Your task to perform on an android device: Do I have any events today? Image 0: 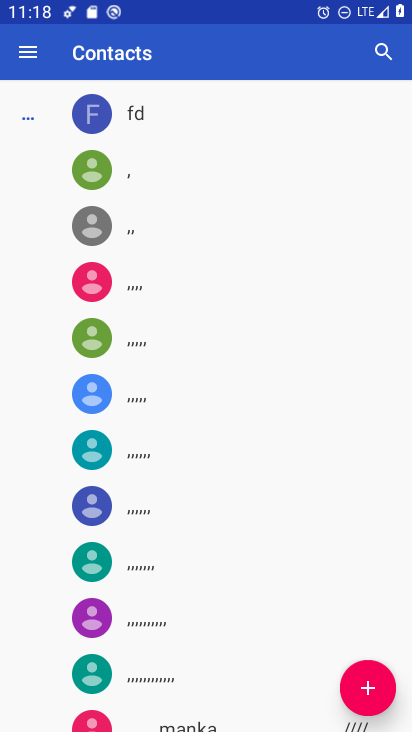
Step 0: press home button
Your task to perform on an android device: Do I have any events today? Image 1: 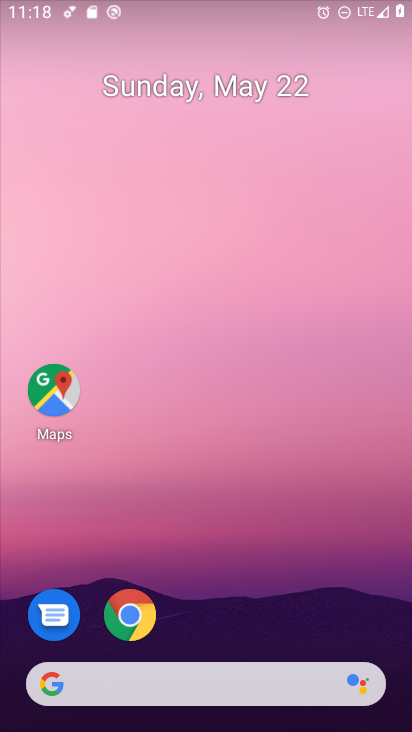
Step 1: drag from (286, 577) to (285, 36)
Your task to perform on an android device: Do I have any events today? Image 2: 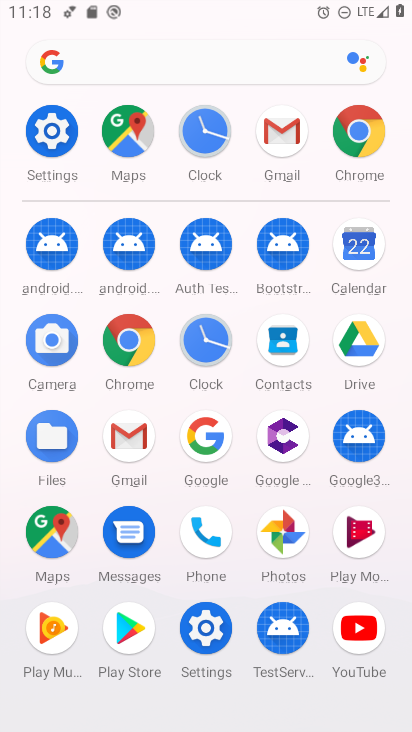
Step 2: click (363, 252)
Your task to perform on an android device: Do I have any events today? Image 3: 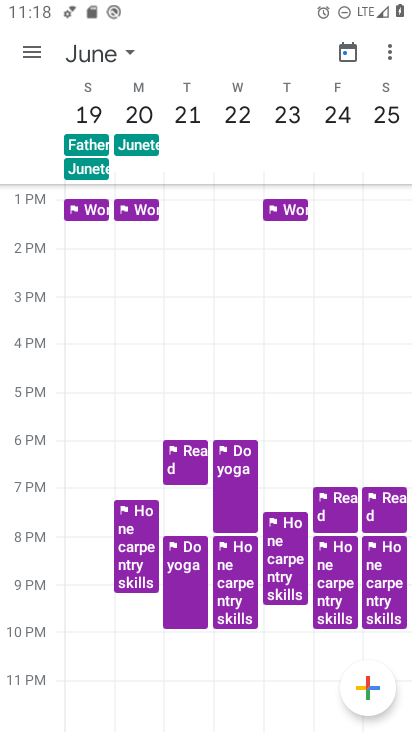
Step 3: click (117, 54)
Your task to perform on an android device: Do I have any events today? Image 4: 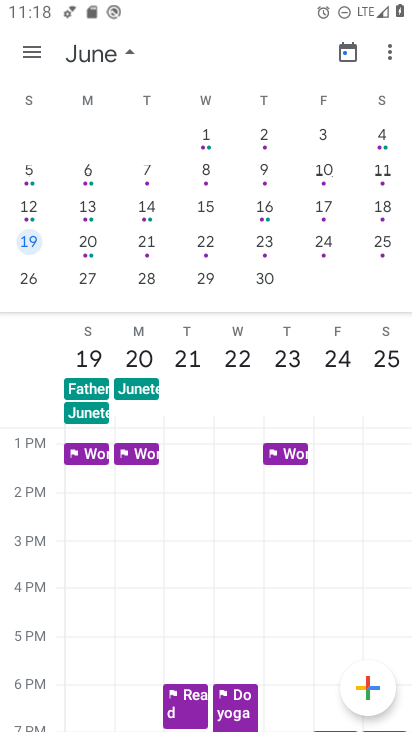
Step 4: drag from (56, 219) to (409, 215)
Your task to perform on an android device: Do I have any events today? Image 5: 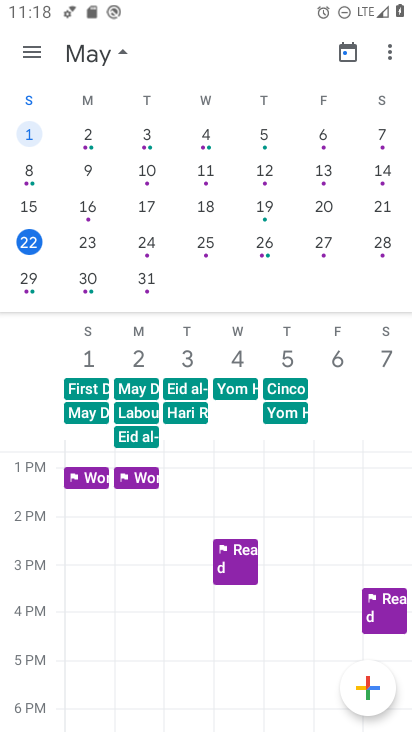
Step 5: click (33, 239)
Your task to perform on an android device: Do I have any events today? Image 6: 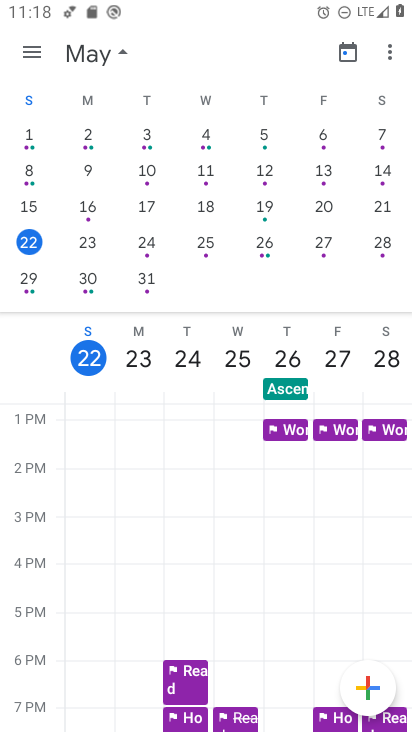
Step 6: task complete